Your task to perform on an android device: Add logitech g903 to the cart on target Image 0: 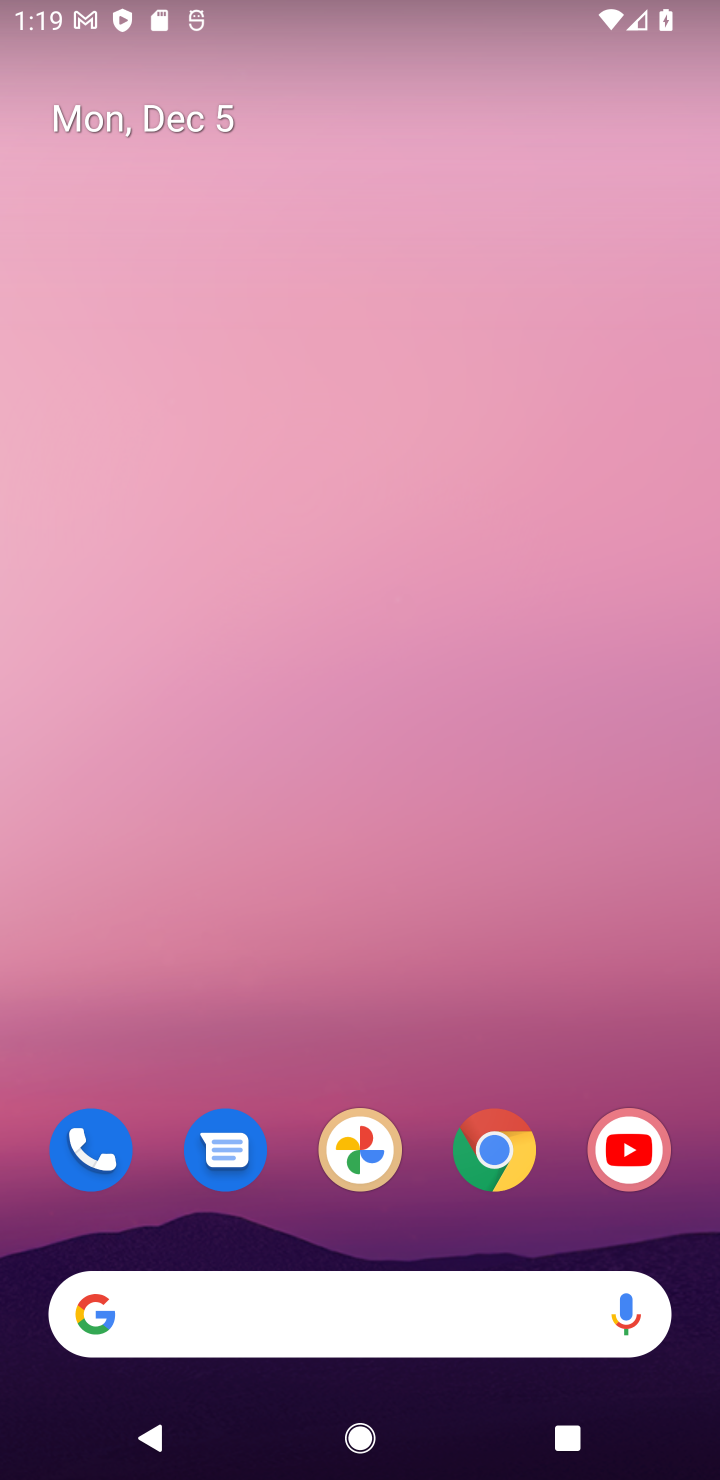
Step 0: click (488, 1148)
Your task to perform on an android device: Add logitech g903 to the cart on target Image 1: 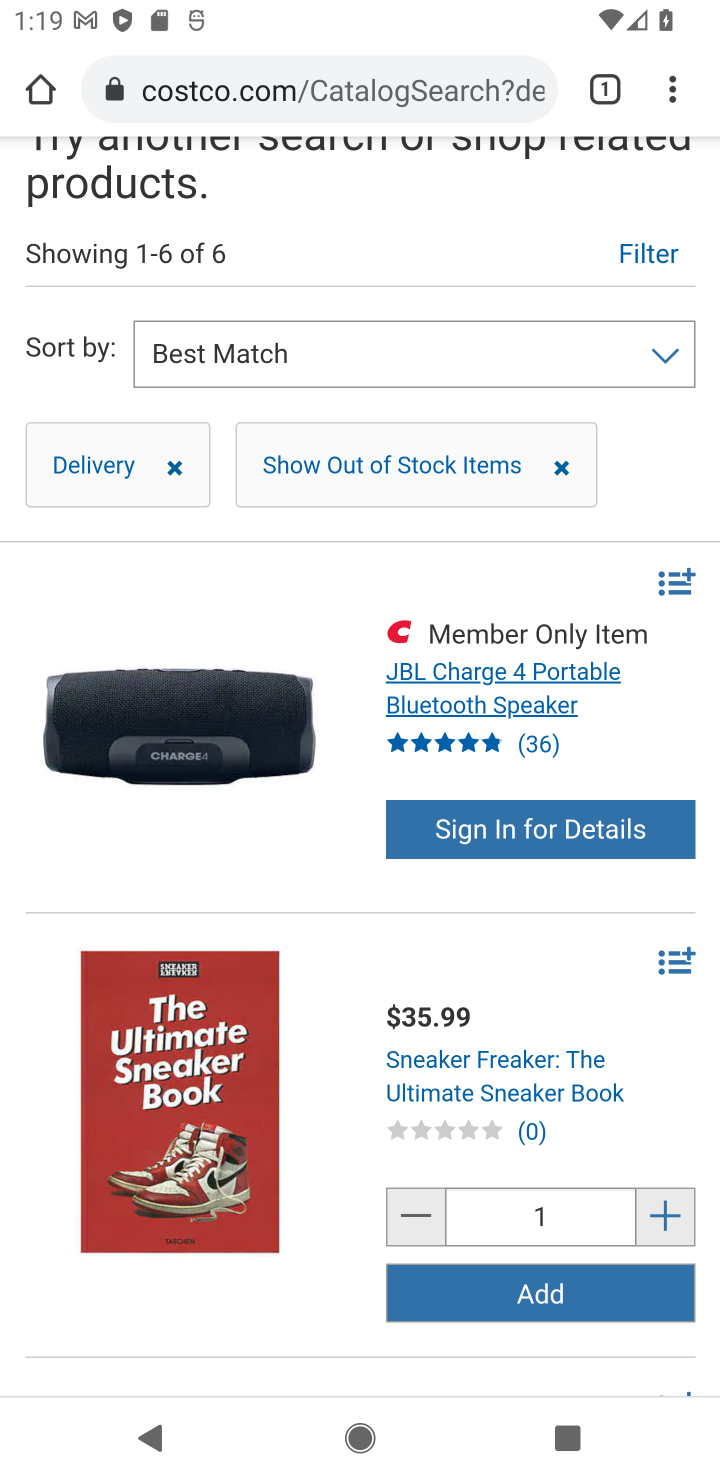
Step 1: click (424, 65)
Your task to perform on an android device: Add logitech g903 to the cart on target Image 2: 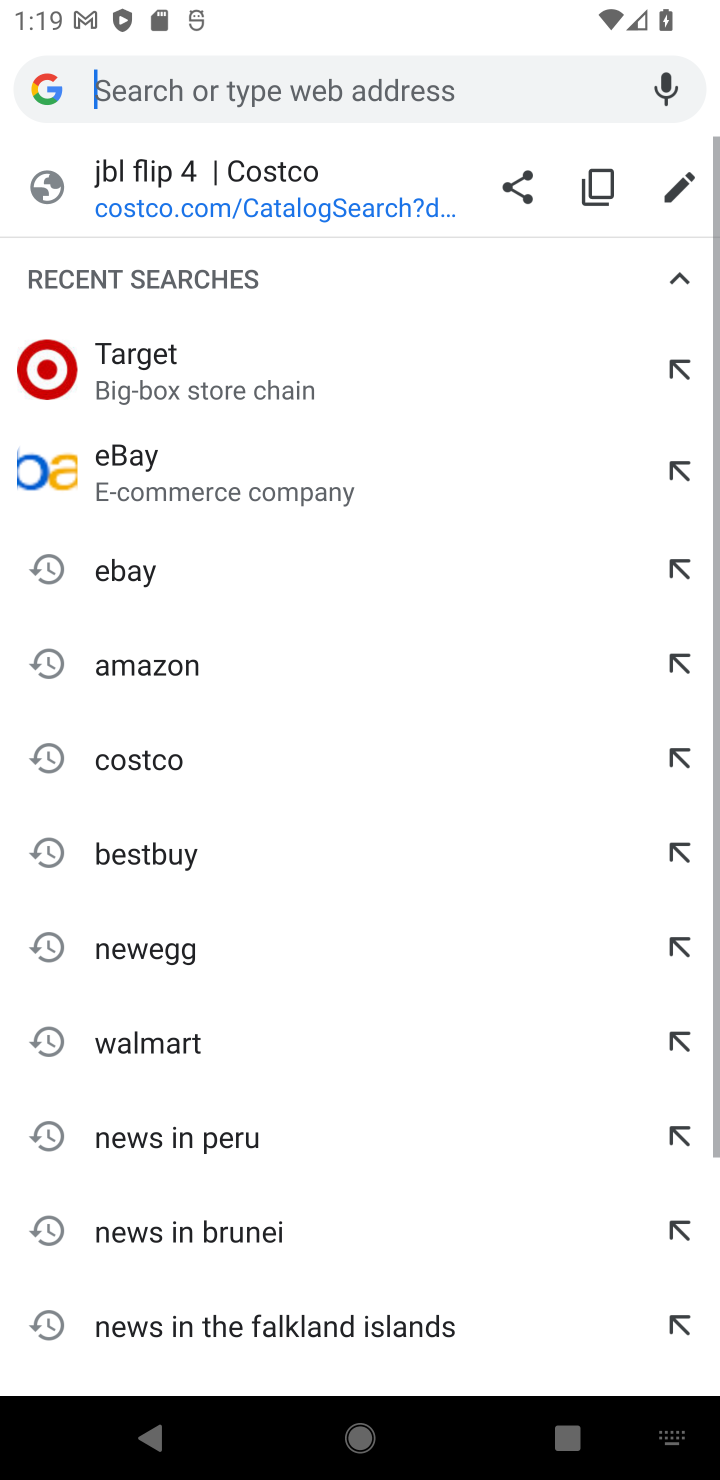
Step 2: click (149, 373)
Your task to perform on an android device: Add logitech g903 to the cart on target Image 3: 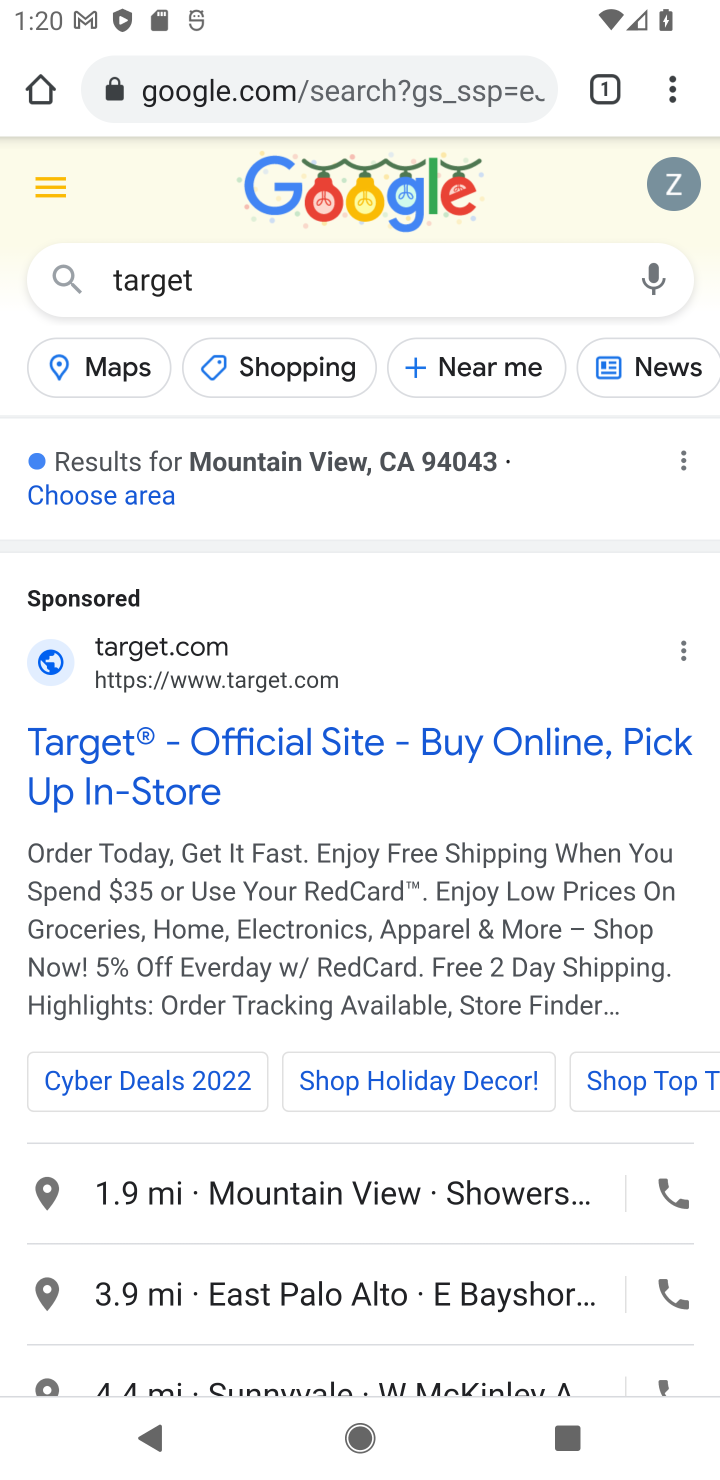
Step 3: click (296, 677)
Your task to perform on an android device: Add logitech g903 to the cart on target Image 4: 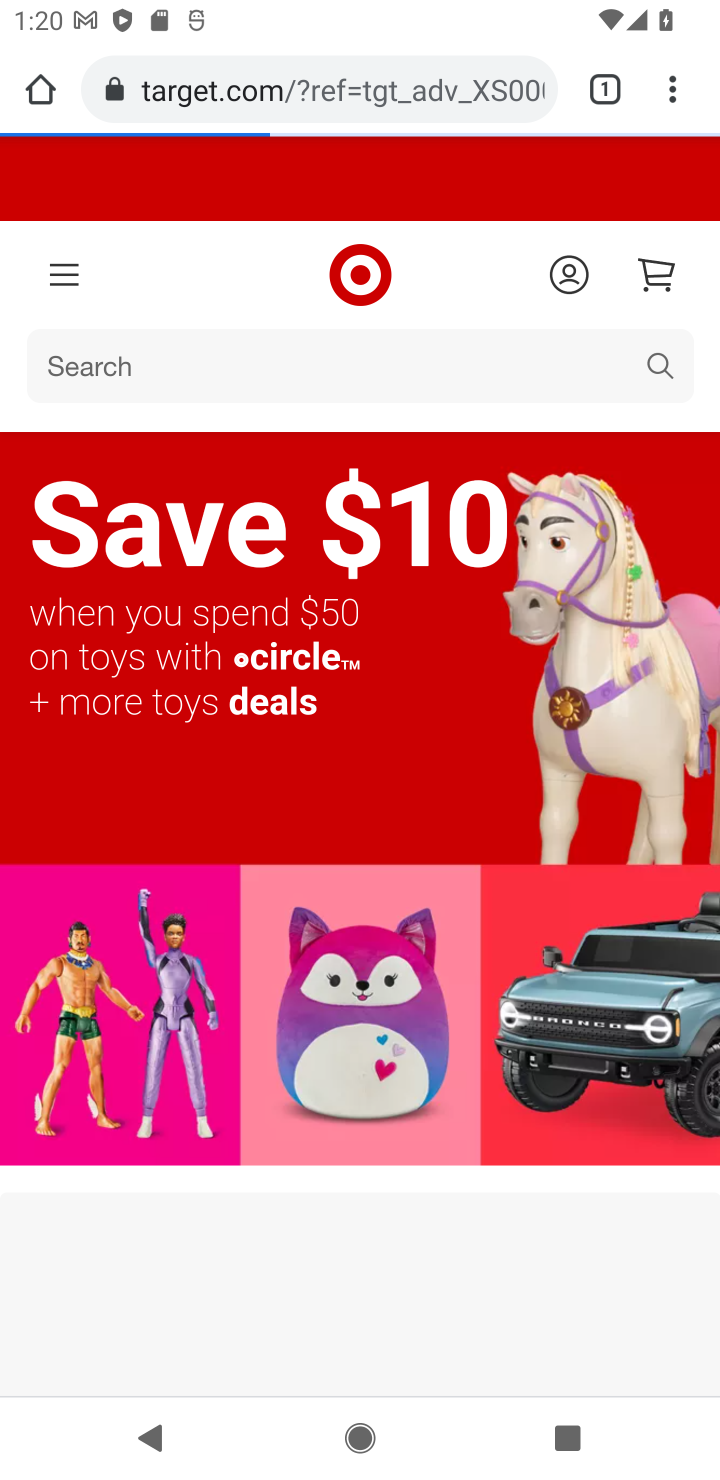
Step 4: click (650, 352)
Your task to perform on an android device: Add logitech g903 to the cart on target Image 5: 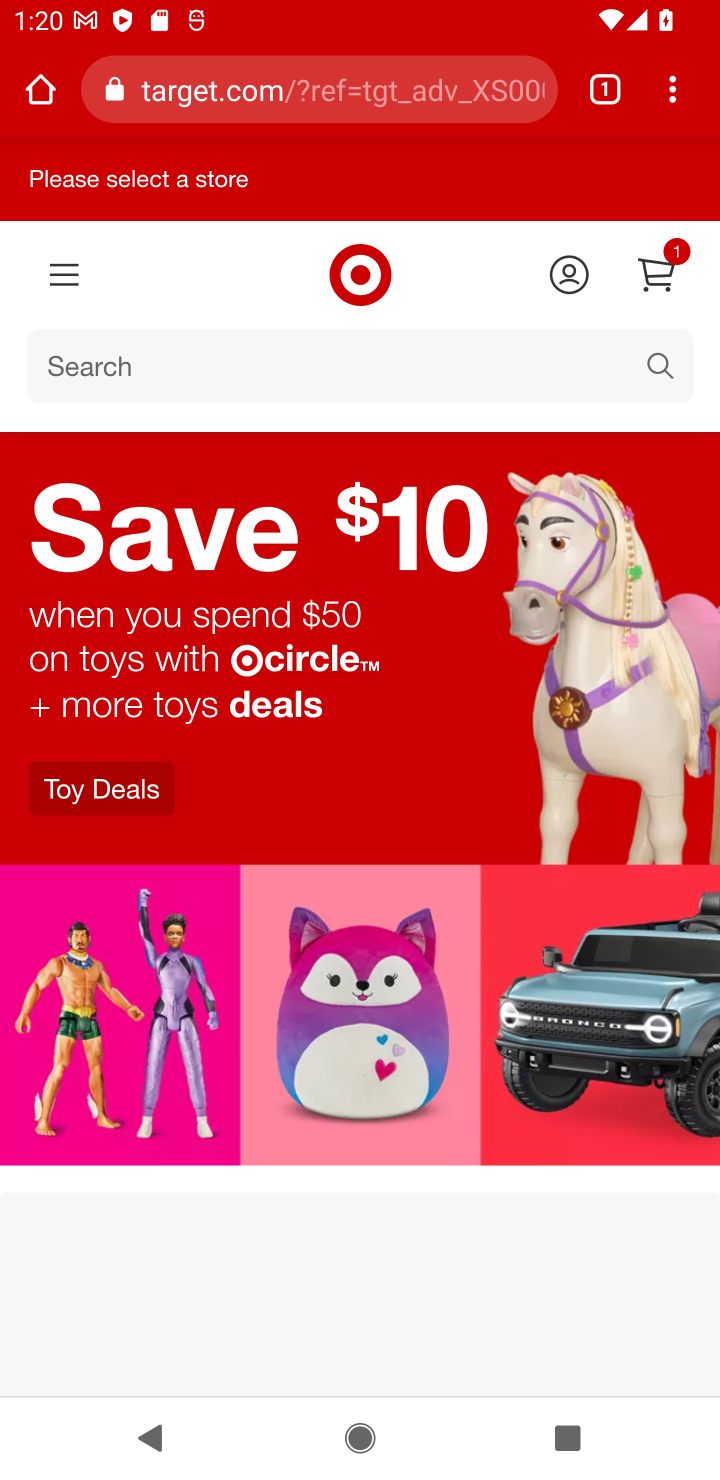
Step 5: click (648, 353)
Your task to perform on an android device: Add logitech g903 to the cart on target Image 6: 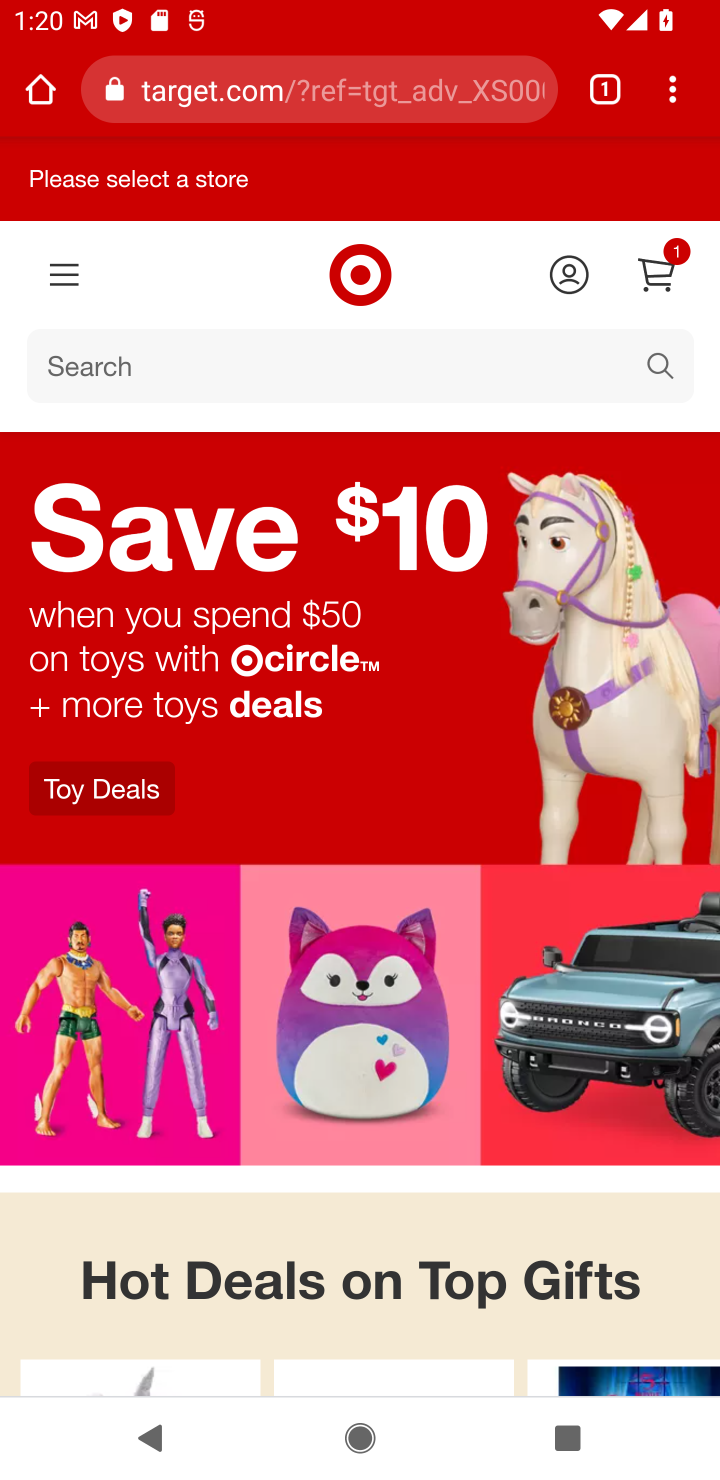
Step 6: click (470, 372)
Your task to perform on an android device: Add logitech g903 to the cart on target Image 7: 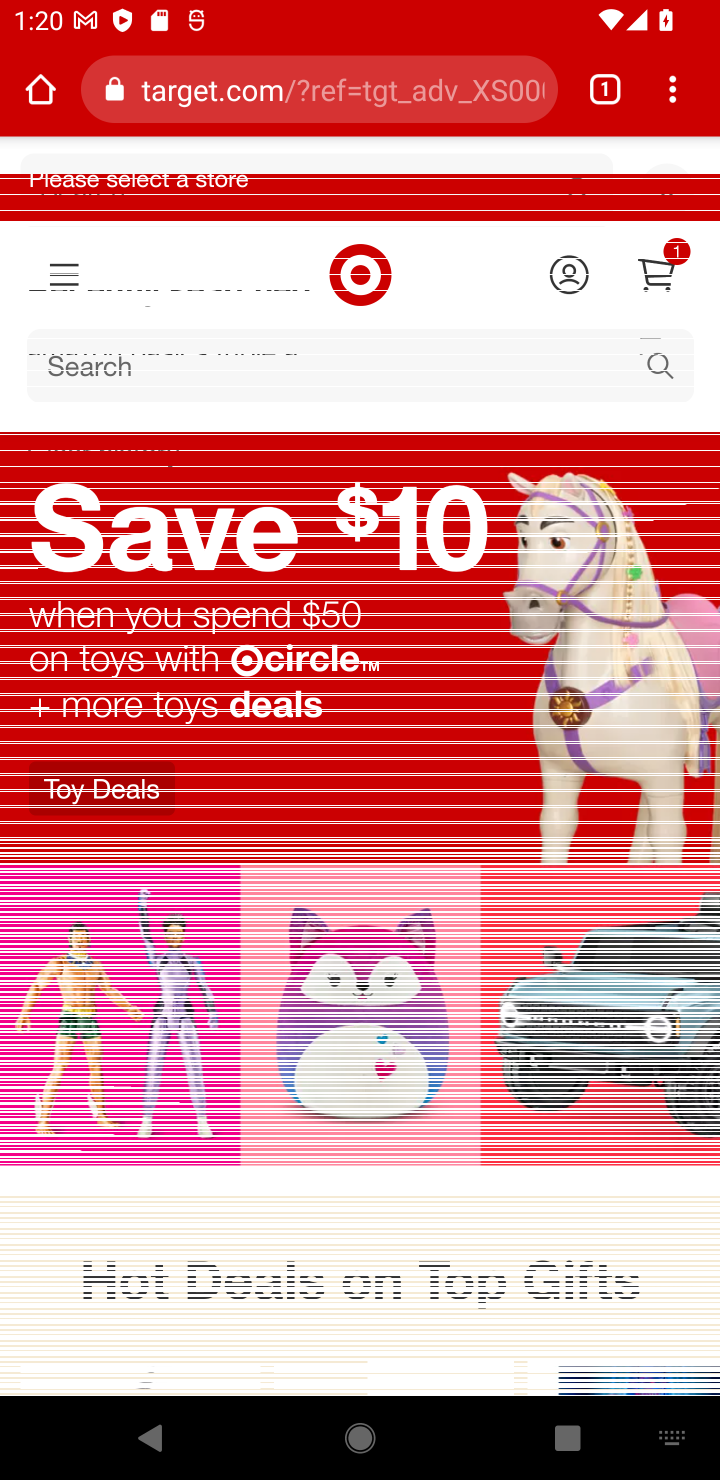
Step 7: press enter
Your task to perform on an android device: Add logitech g903 to the cart on target Image 8: 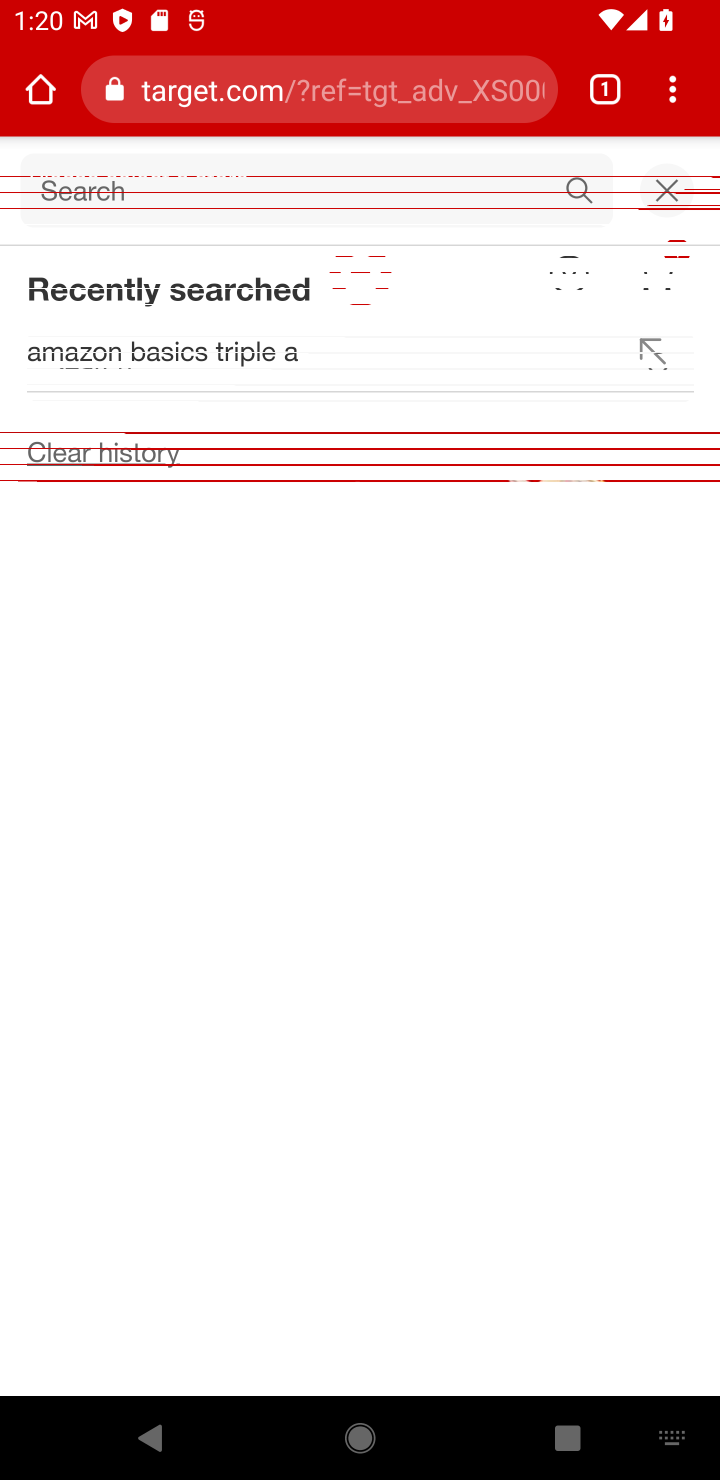
Step 8: type "logitech g903 "
Your task to perform on an android device: Add logitech g903 to the cart on target Image 9: 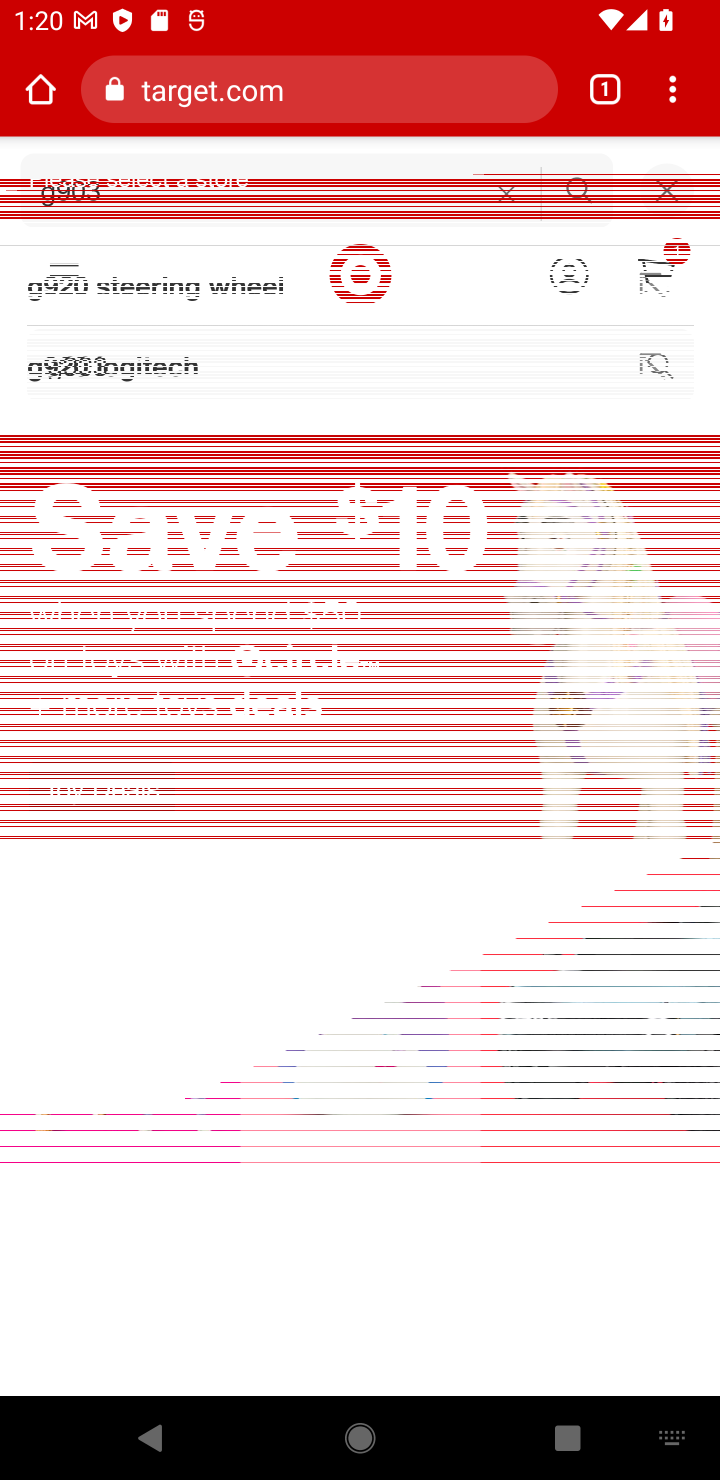
Step 9: click (590, 185)
Your task to perform on an android device: Add logitech g903 to the cart on target Image 10: 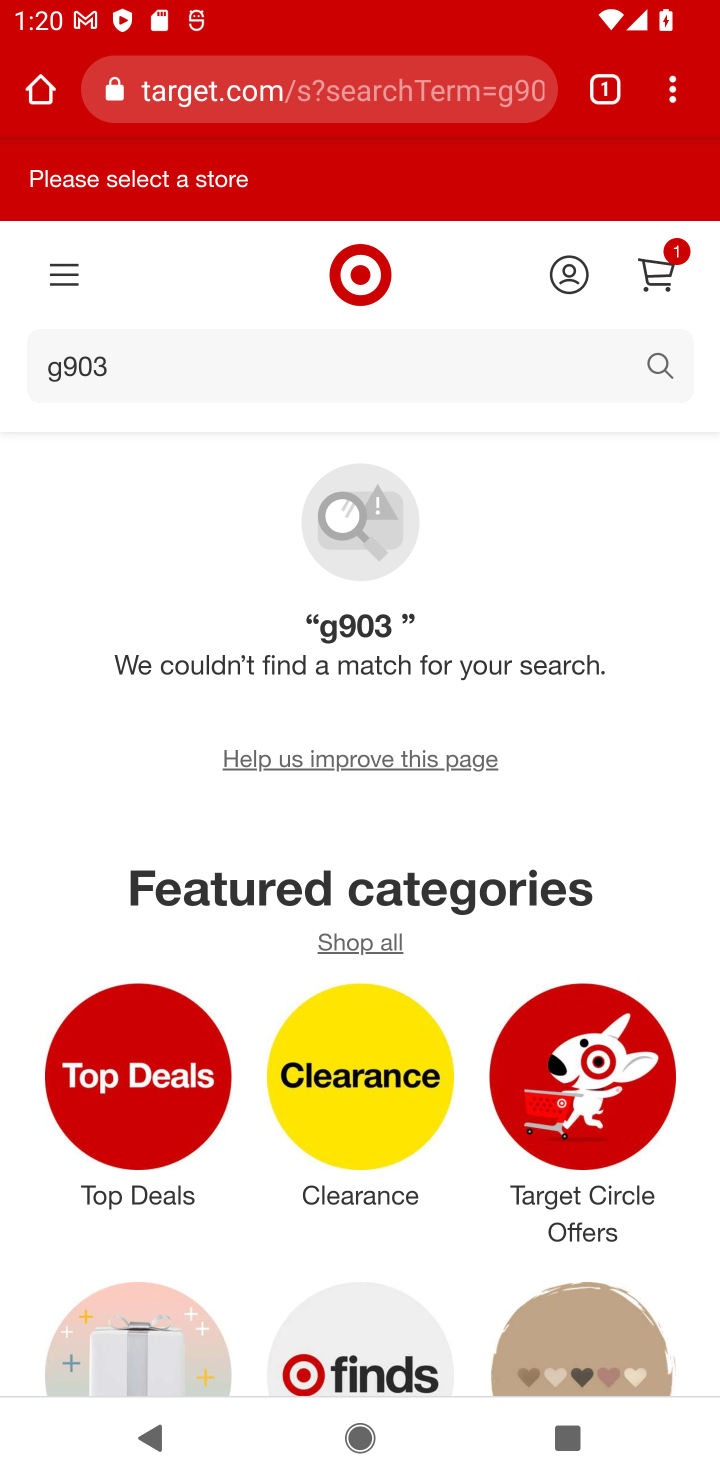
Step 10: click (656, 367)
Your task to perform on an android device: Add logitech g903 to the cart on target Image 11: 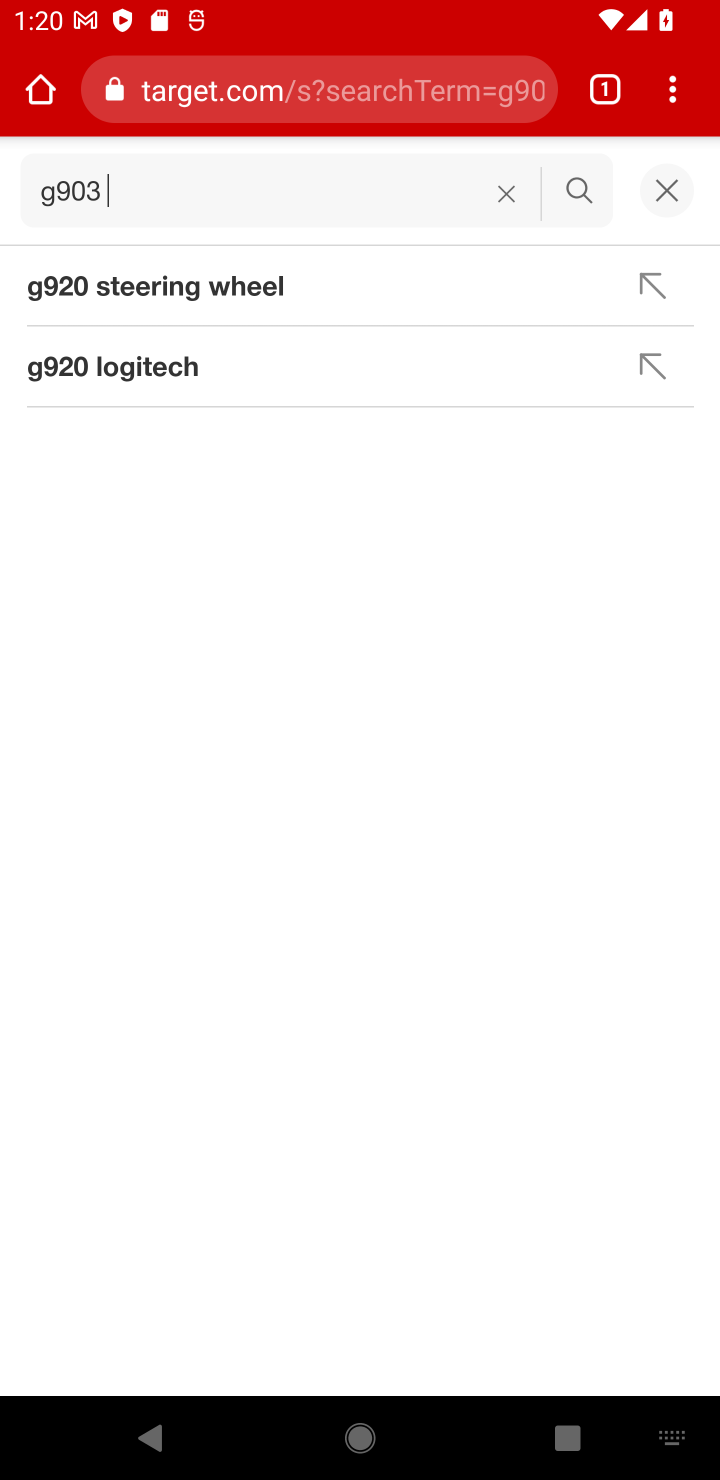
Step 11: click (501, 188)
Your task to perform on an android device: Add logitech g903 to the cart on target Image 12: 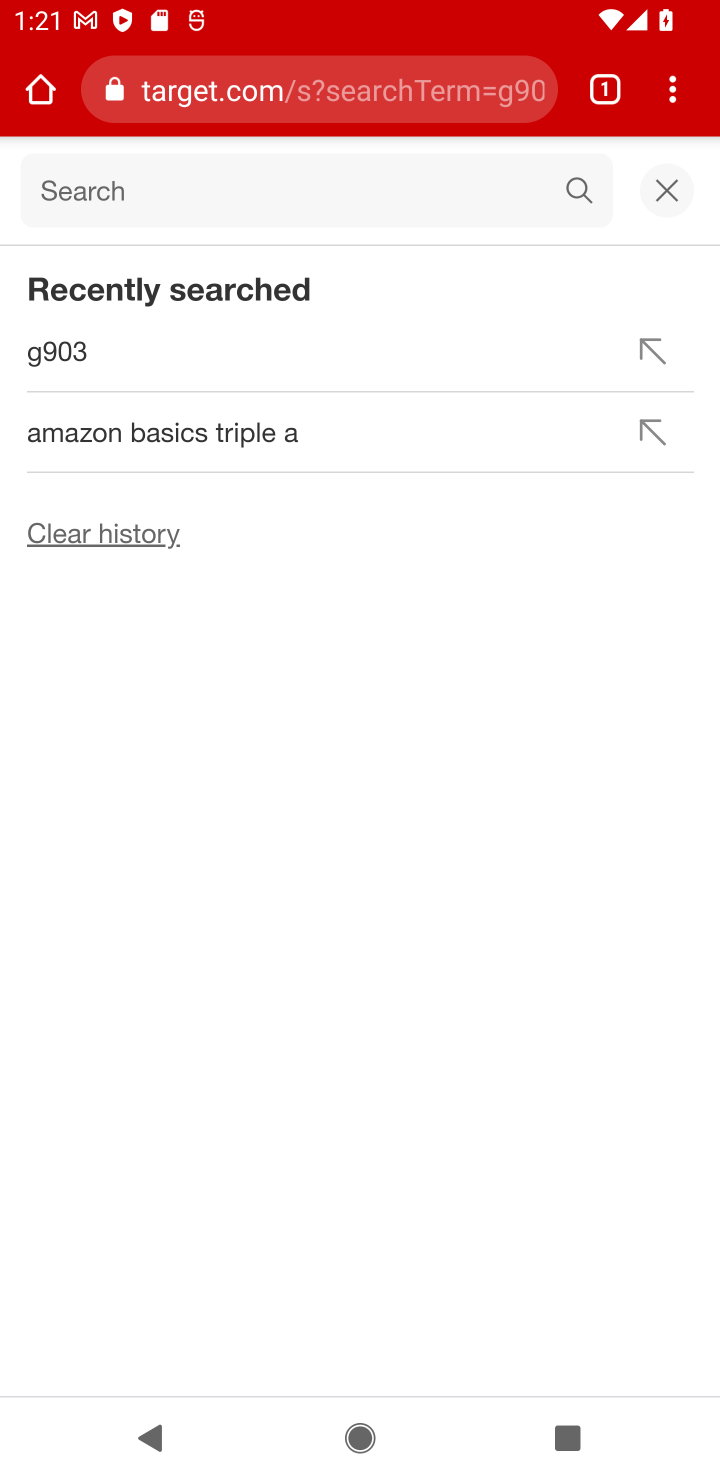
Step 12: type "logitech g903"
Your task to perform on an android device: Add logitech g903 to the cart on target Image 13: 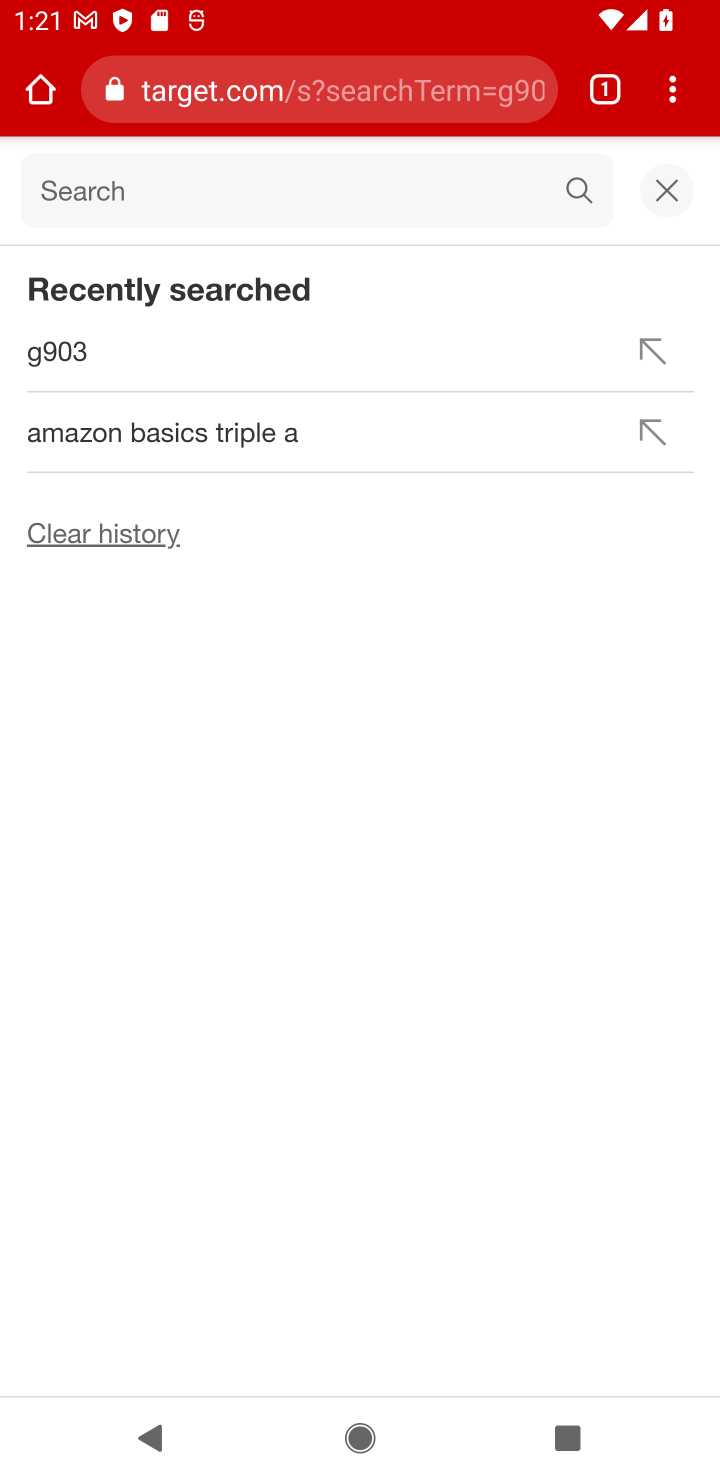
Step 13: press enter
Your task to perform on an android device: Add logitech g903 to the cart on target Image 14: 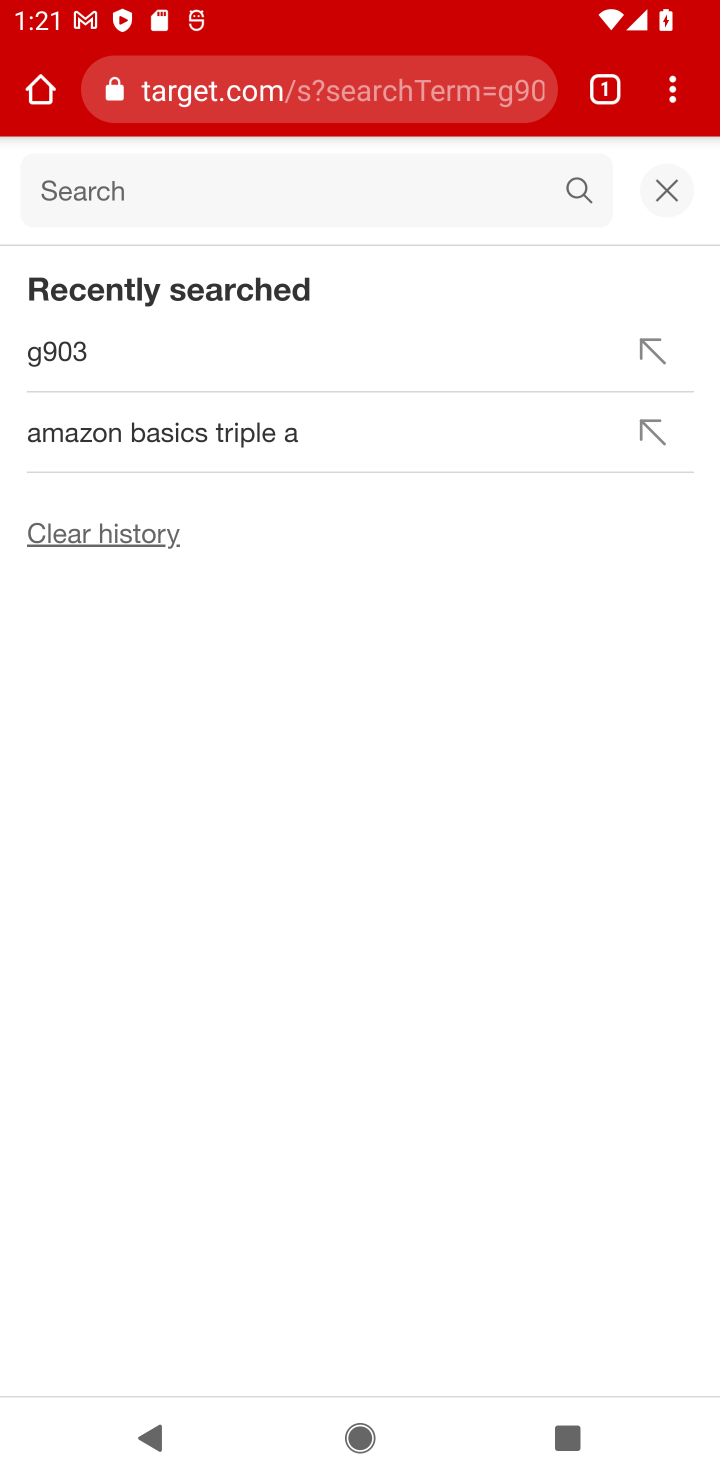
Step 14: click (191, 179)
Your task to perform on an android device: Add logitech g903 to the cart on target Image 15: 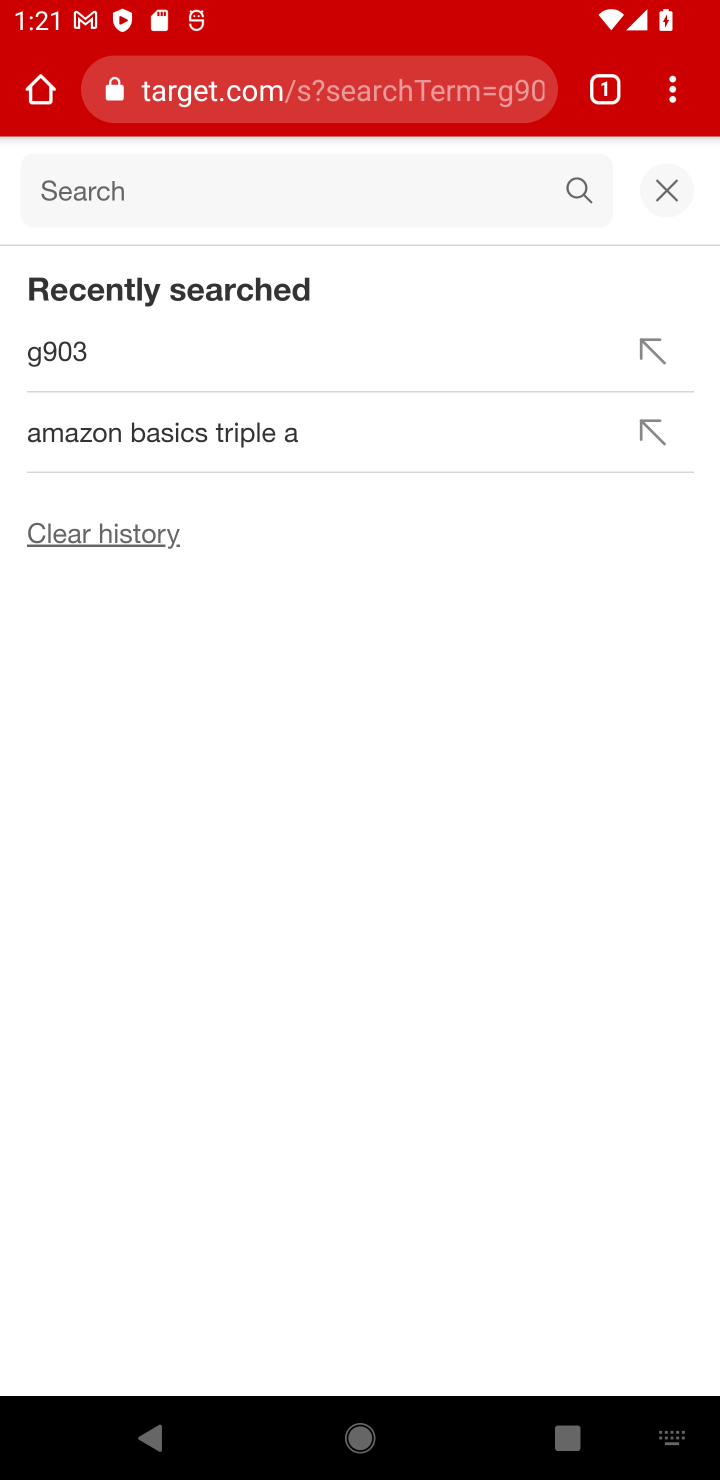
Step 15: type "logitech g903"
Your task to perform on an android device: Add logitech g903 to the cart on target Image 16: 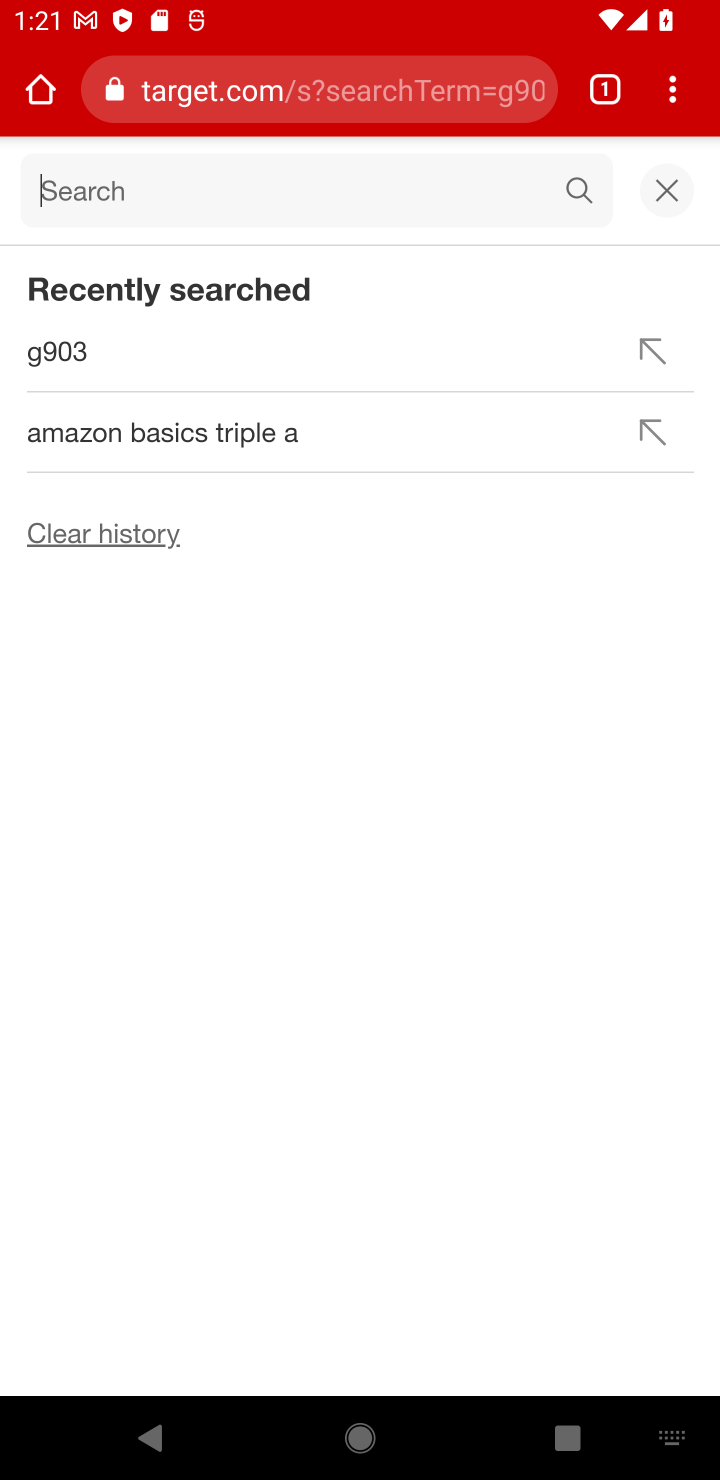
Step 16: press enter
Your task to perform on an android device: Add logitech g903 to the cart on target Image 17: 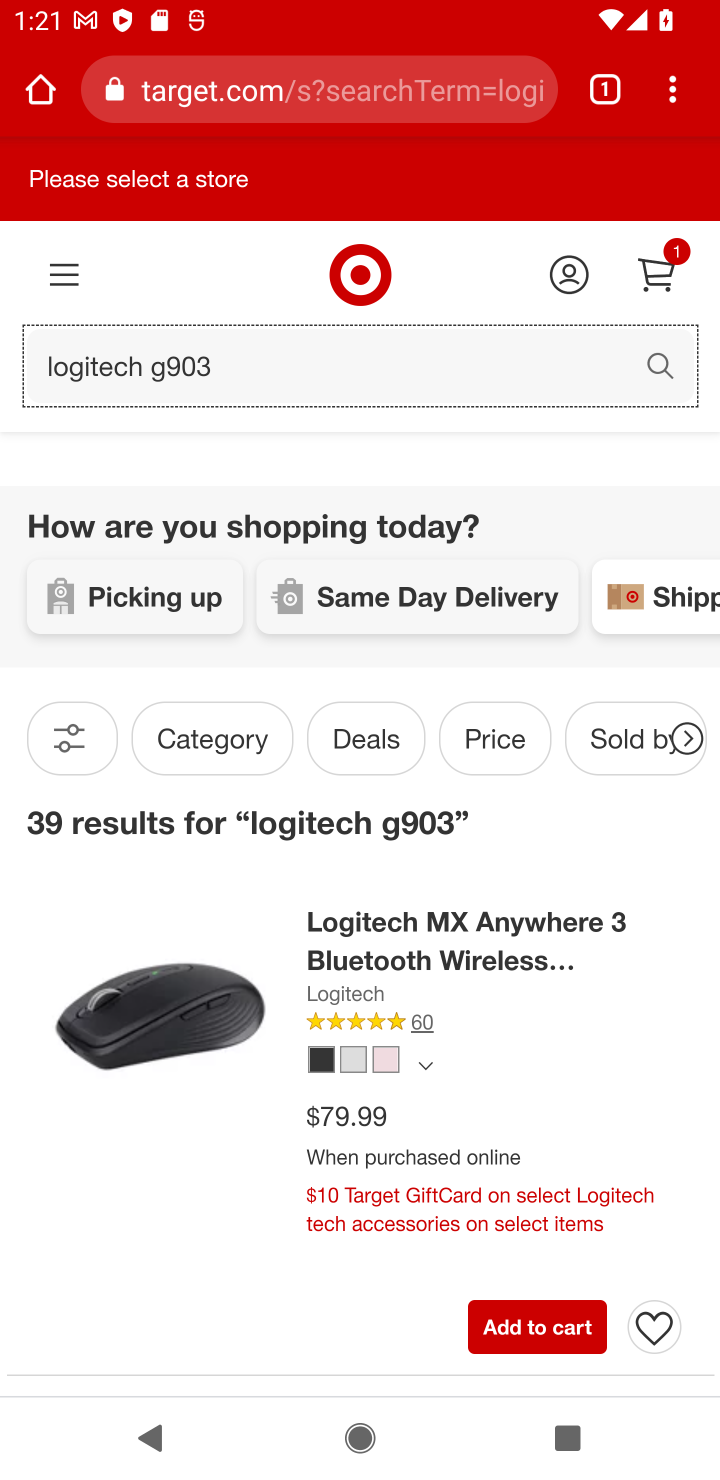
Step 17: task complete